Your task to perform on an android device: Open Wikipedia Image 0: 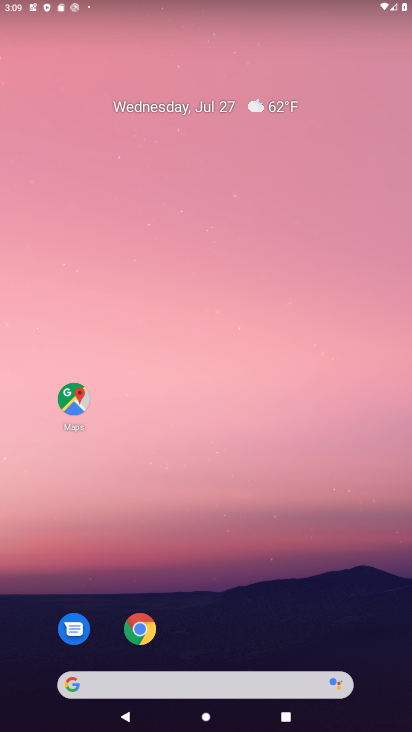
Step 0: click (141, 629)
Your task to perform on an android device: Open Wikipedia Image 1: 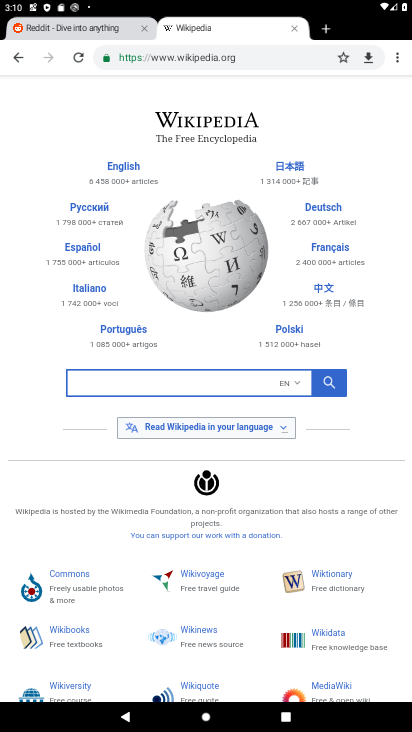
Step 1: click (246, 54)
Your task to perform on an android device: Open Wikipedia Image 2: 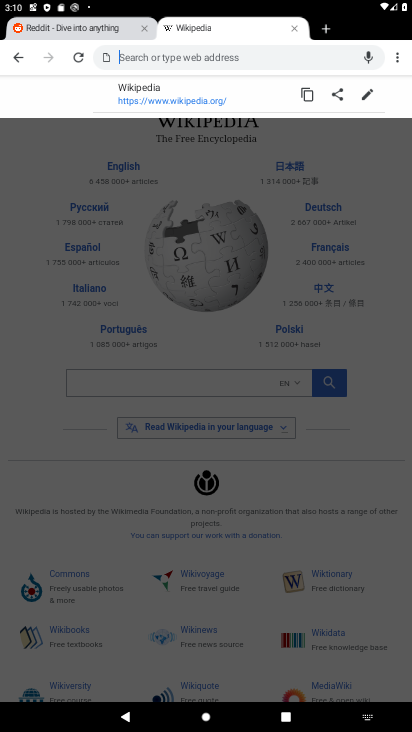
Step 2: type "Wikipedia"
Your task to perform on an android device: Open Wikipedia Image 3: 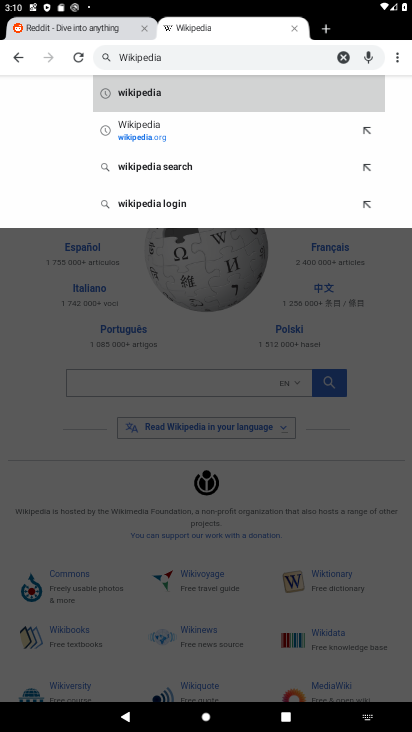
Step 3: click (143, 125)
Your task to perform on an android device: Open Wikipedia Image 4: 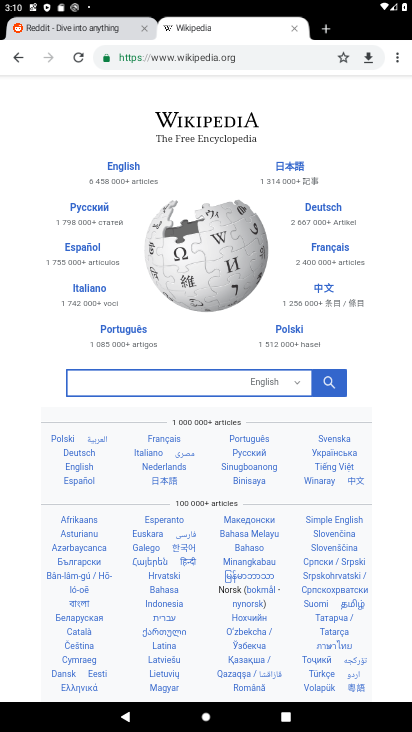
Step 4: task complete